Your task to perform on an android device: Go to location settings Image 0: 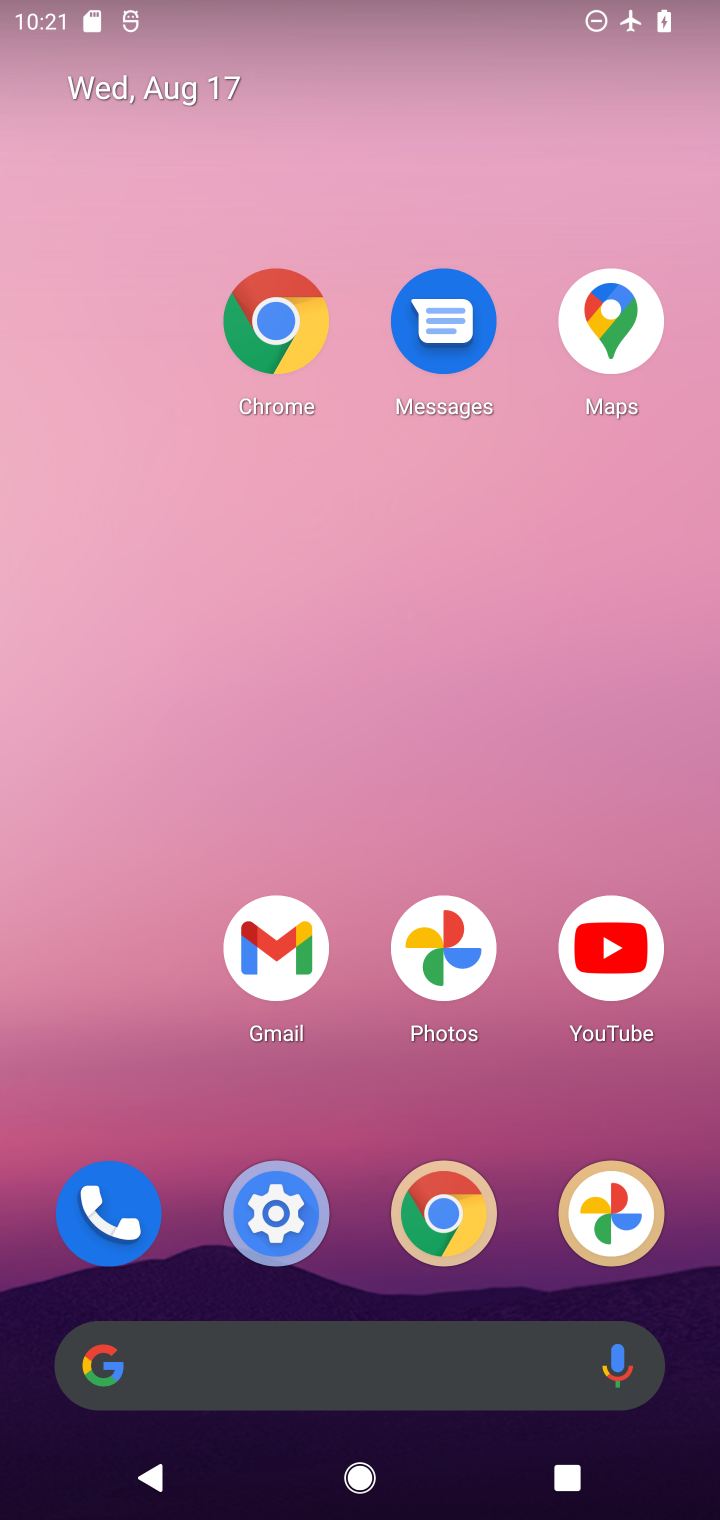
Step 0: click (302, 1219)
Your task to perform on an android device: Go to location settings Image 1: 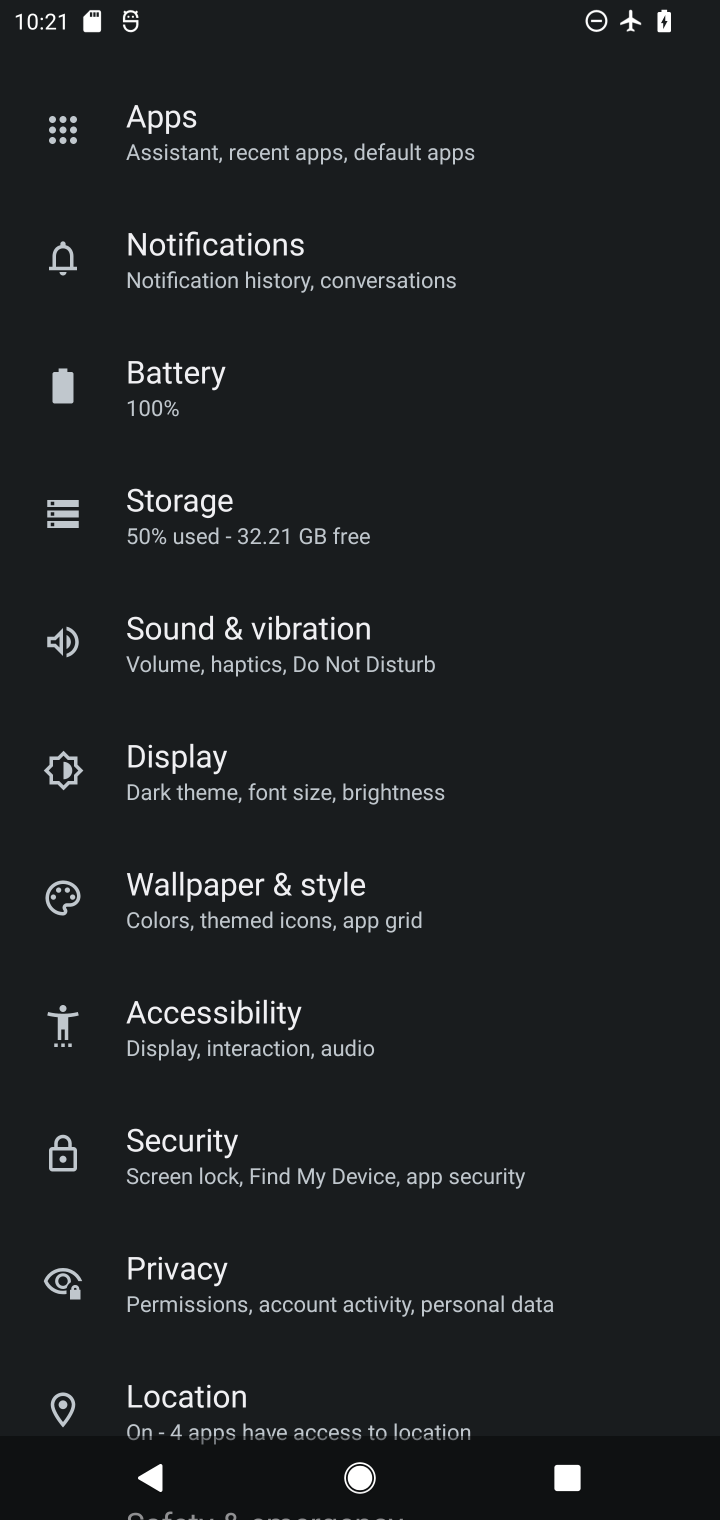
Step 1: click (286, 1411)
Your task to perform on an android device: Go to location settings Image 2: 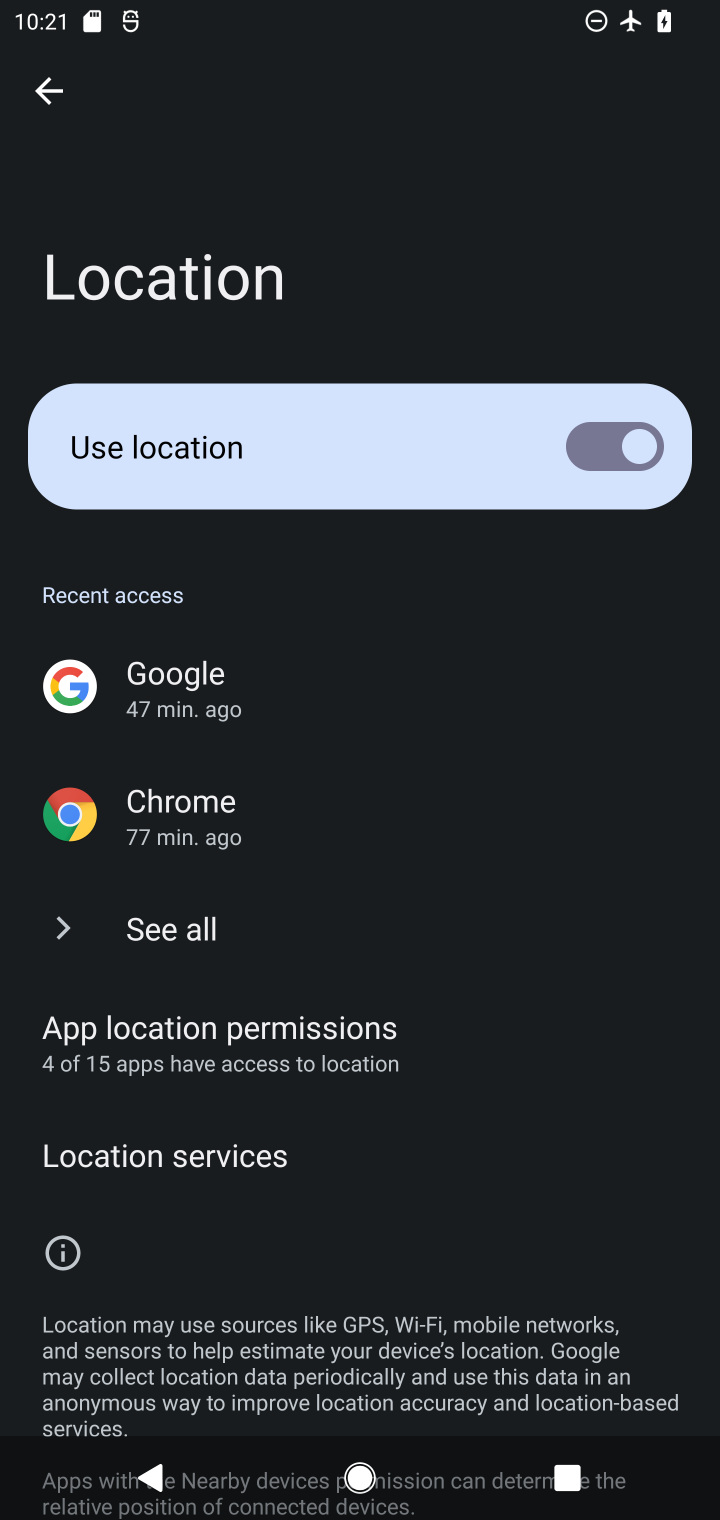
Step 2: task complete